Your task to perform on an android device: Go to ESPN.com Image 0: 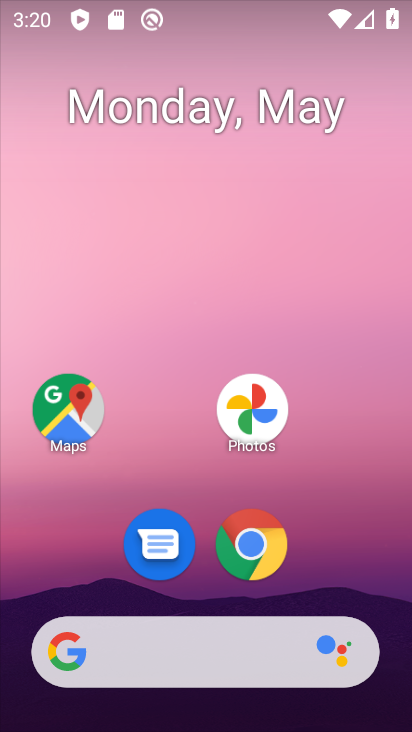
Step 0: drag from (276, 470) to (290, 1)
Your task to perform on an android device: Go to ESPN.com Image 1: 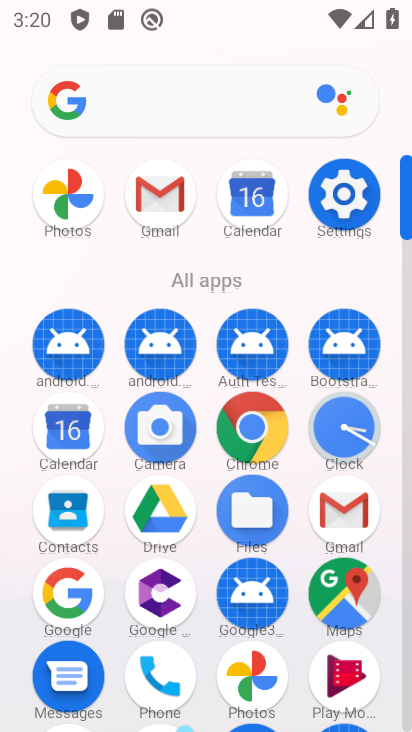
Step 1: click (231, 424)
Your task to perform on an android device: Go to ESPN.com Image 2: 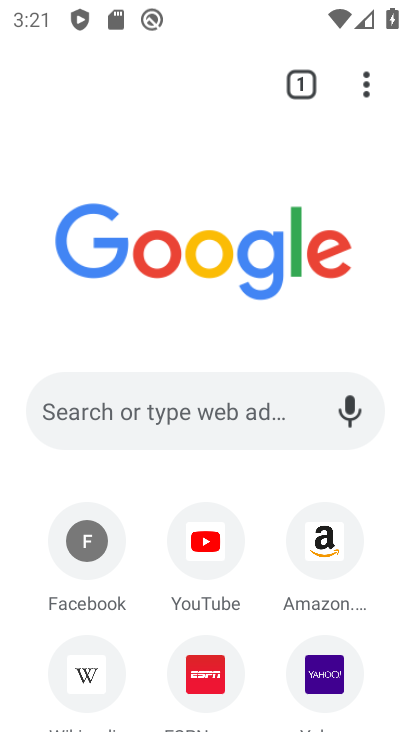
Step 2: drag from (267, 601) to (269, 352)
Your task to perform on an android device: Go to ESPN.com Image 3: 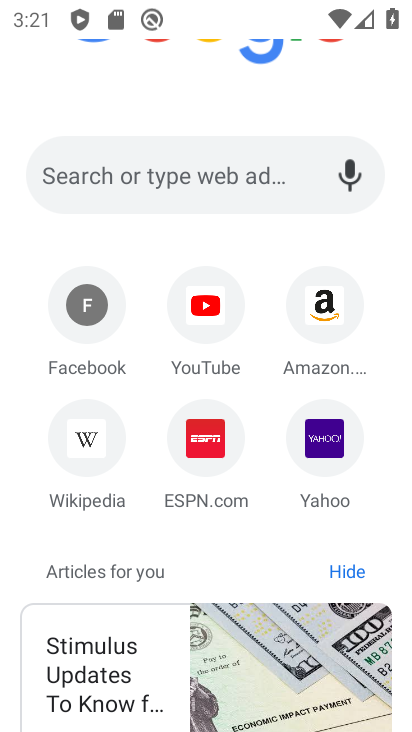
Step 3: click (204, 482)
Your task to perform on an android device: Go to ESPN.com Image 4: 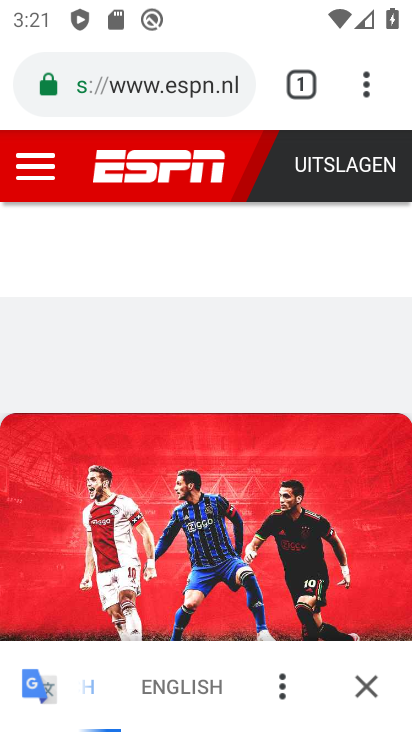
Step 4: task complete